Your task to perform on an android device: turn notification dots off Image 0: 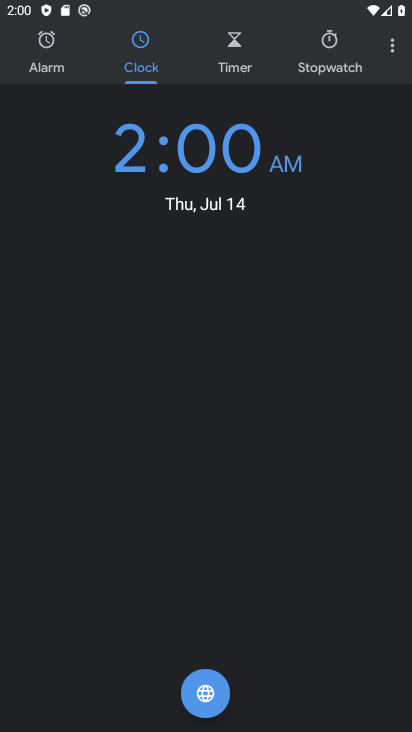
Step 0: press home button
Your task to perform on an android device: turn notification dots off Image 1: 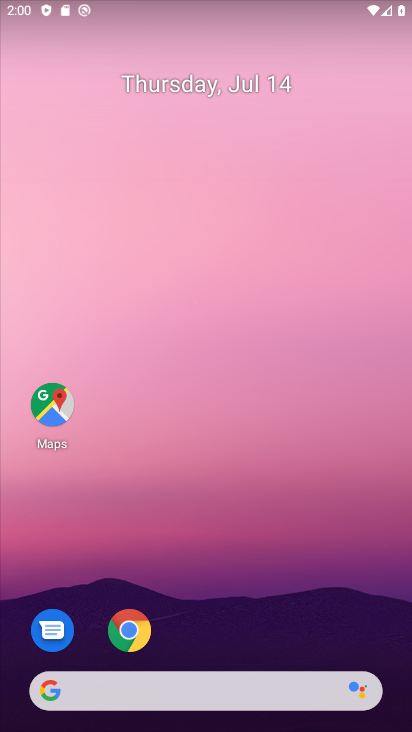
Step 1: drag from (227, 645) to (273, 198)
Your task to perform on an android device: turn notification dots off Image 2: 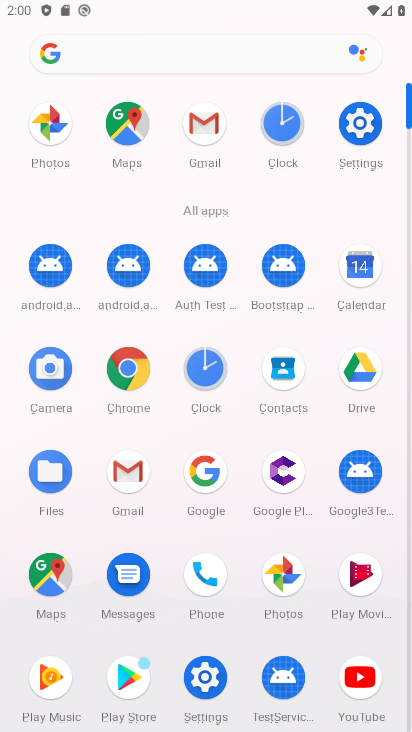
Step 2: click (199, 685)
Your task to perform on an android device: turn notification dots off Image 3: 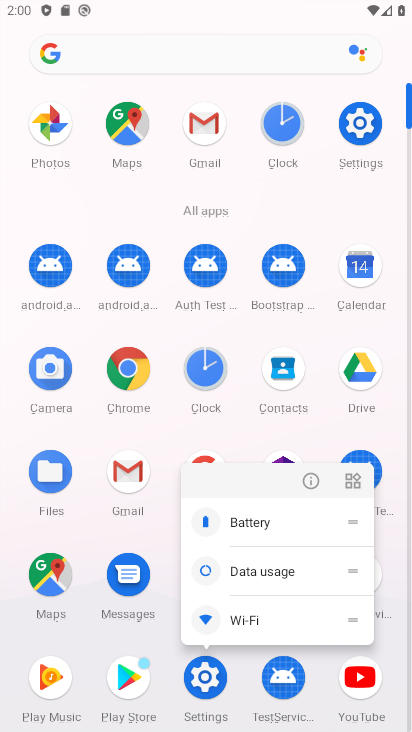
Step 3: click (197, 682)
Your task to perform on an android device: turn notification dots off Image 4: 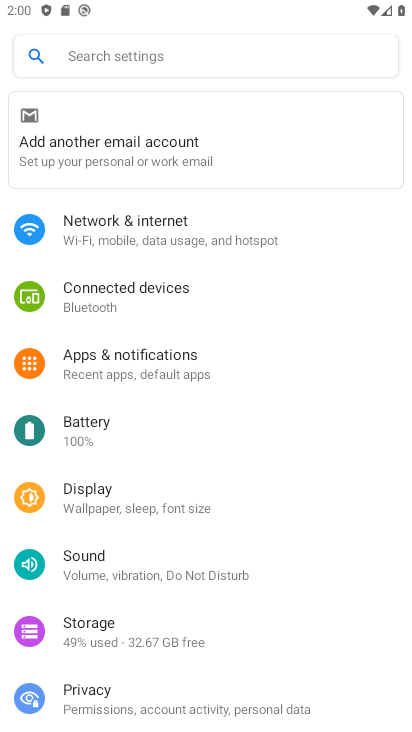
Step 4: click (153, 377)
Your task to perform on an android device: turn notification dots off Image 5: 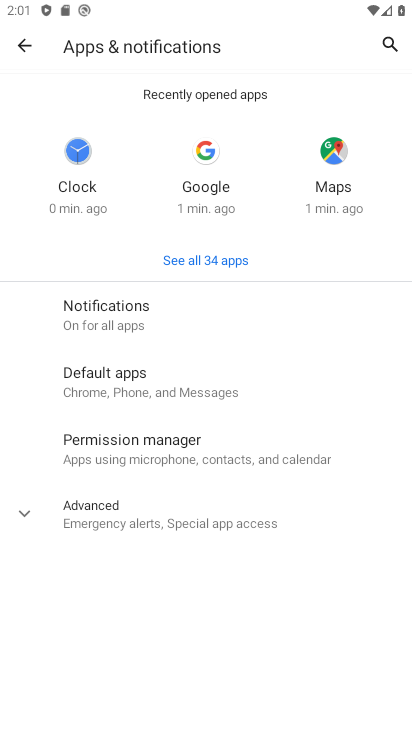
Step 5: click (164, 339)
Your task to perform on an android device: turn notification dots off Image 6: 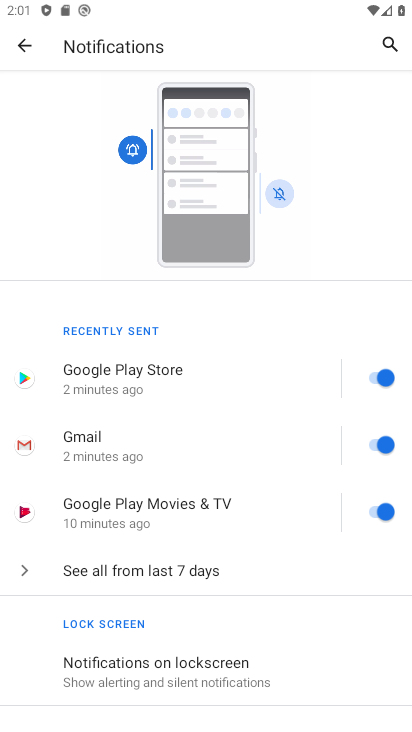
Step 6: drag from (142, 566) to (229, 231)
Your task to perform on an android device: turn notification dots off Image 7: 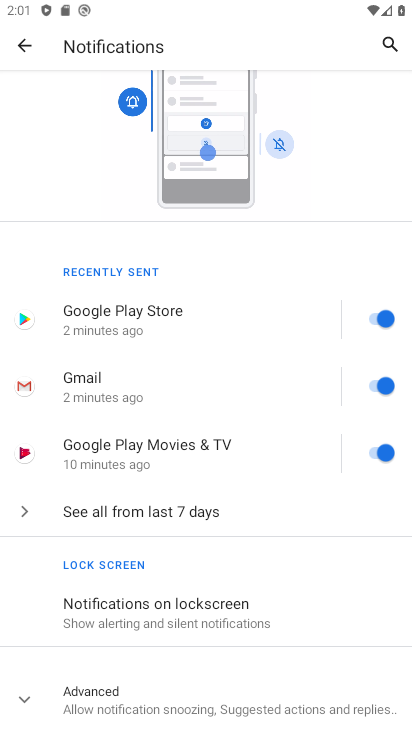
Step 7: drag from (276, 394) to (292, 308)
Your task to perform on an android device: turn notification dots off Image 8: 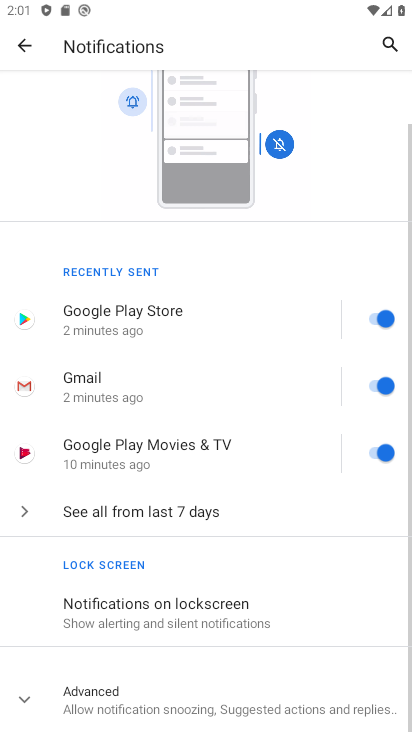
Step 8: click (171, 700)
Your task to perform on an android device: turn notification dots off Image 9: 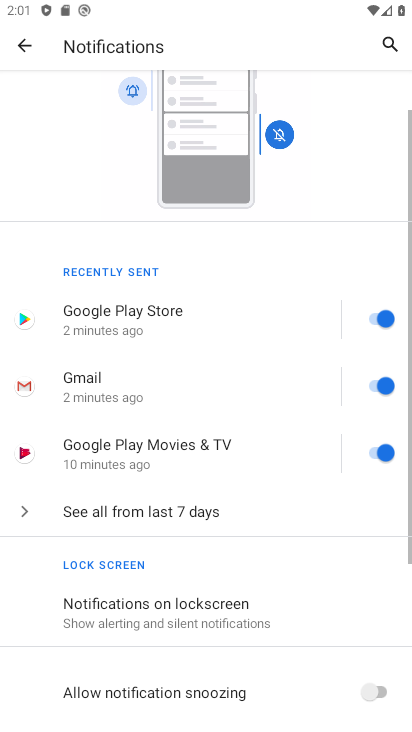
Step 9: drag from (171, 700) to (235, 345)
Your task to perform on an android device: turn notification dots off Image 10: 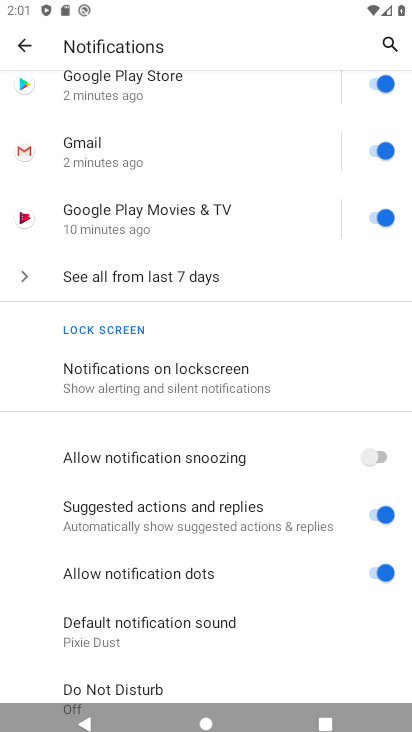
Step 10: drag from (252, 477) to (262, 441)
Your task to perform on an android device: turn notification dots off Image 11: 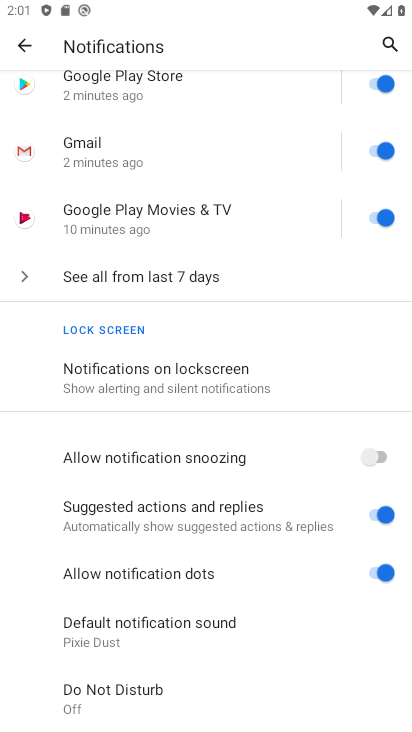
Step 11: click (373, 568)
Your task to perform on an android device: turn notification dots off Image 12: 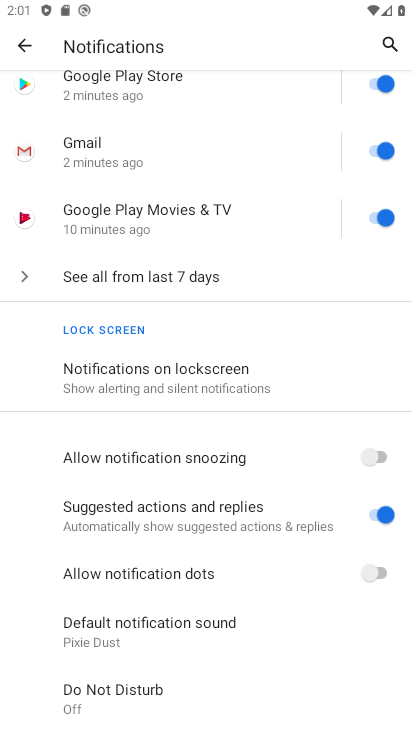
Step 12: task complete